Your task to perform on an android device: Show the shopping cart on bestbuy.com. Image 0: 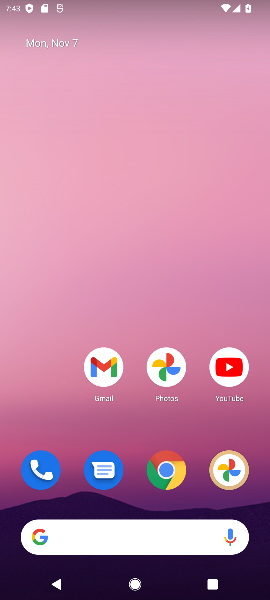
Step 0: click (169, 474)
Your task to perform on an android device: Show the shopping cart on bestbuy.com. Image 1: 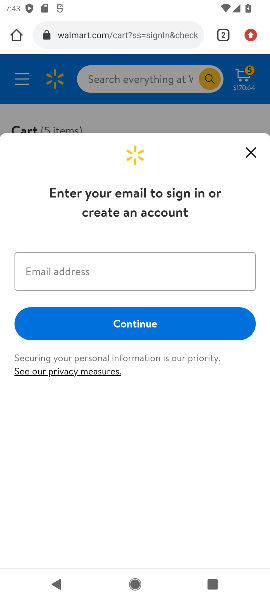
Step 1: click (146, 29)
Your task to perform on an android device: Show the shopping cart on bestbuy.com. Image 2: 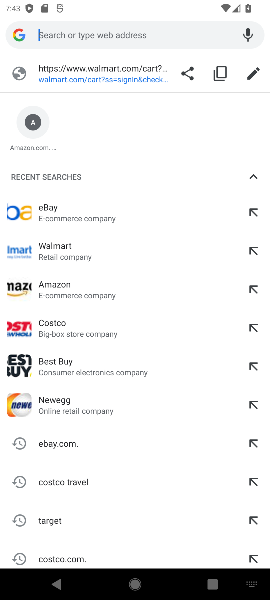
Step 2: type "bestbuy"
Your task to perform on an android device: Show the shopping cart on bestbuy.com. Image 3: 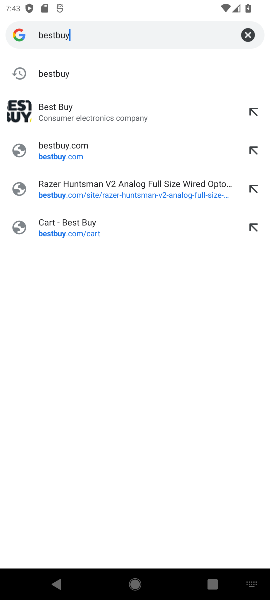
Step 3: click (48, 114)
Your task to perform on an android device: Show the shopping cart on bestbuy.com. Image 4: 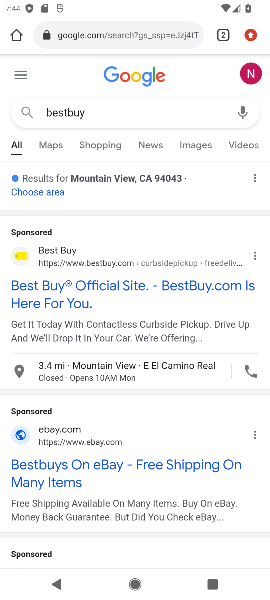
Step 4: click (64, 302)
Your task to perform on an android device: Show the shopping cart on bestbuy.com. Image 5: 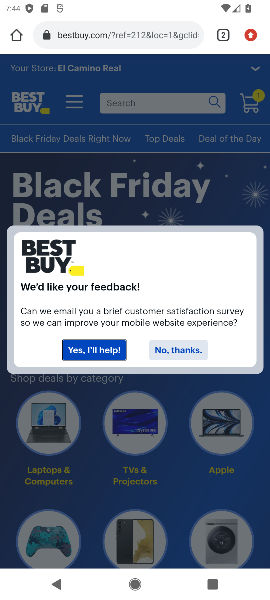
Step 5: click (100, 346)
Your task to perform on an android device: Show the shopping cart on bestbuy.com. Image 6: 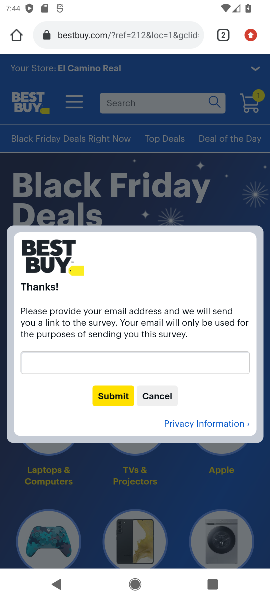
Step 6: click (170, 391)
Your task to perform on an android device: Show the shopping cart on bestbuy.com. Image 7: 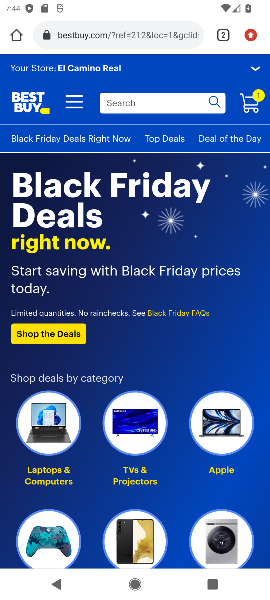
Step 7: click (250, 106)
Your task to perform on an android device: Show the shopping cart on bestbuy.com. Image 8: 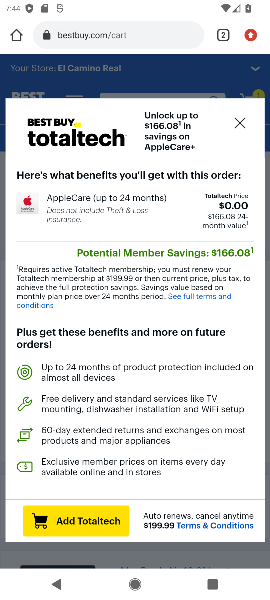
Step 8: click (229, 123)
Your task to perform on an android device: Show the shopping cart on bestbuy.com. Image 9: 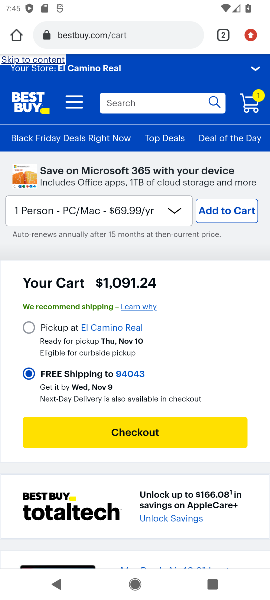
Step 9: task complete